Your task to perform on an android device: uninstall "Google Play services" Image 0: 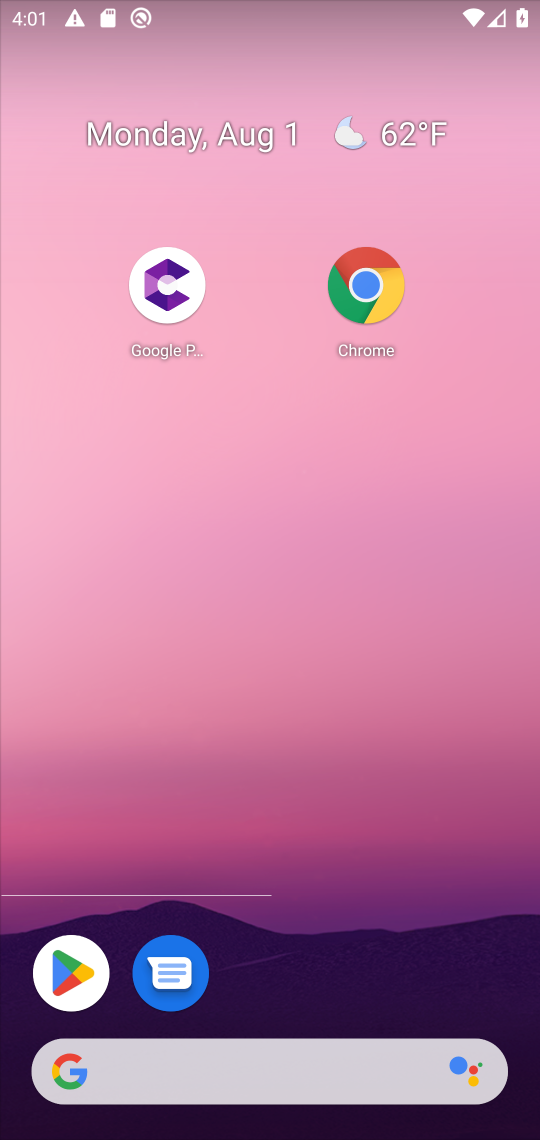
Step 0: press back button
Your task to perform on an android device: uninstall "Google Play services" Image 1: 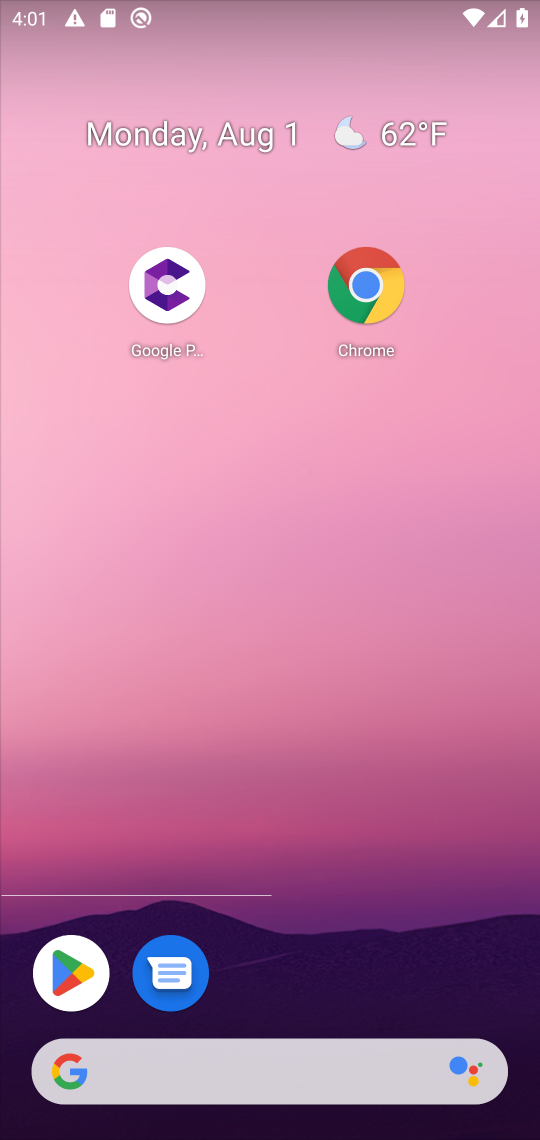
Step 1: drag from (237, 164) to (29, 49)
Your task to perform on an android device: uninstall "Google Play services" Image 2: 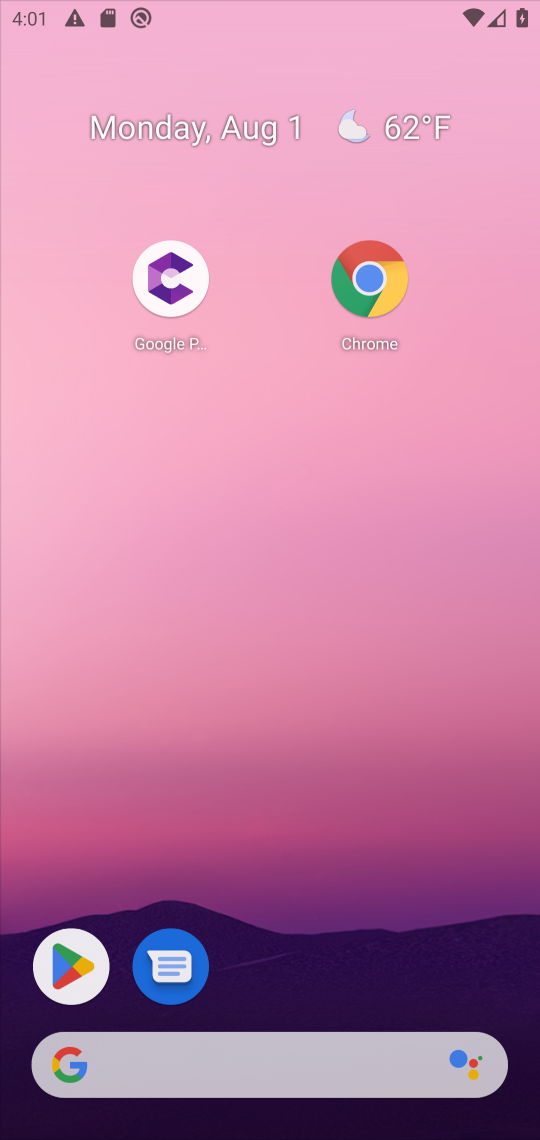
Step 2: drag from (288, 718) to (279, 314)
Your task to perform on an android device: uninstall "Google Play services" Image 3: 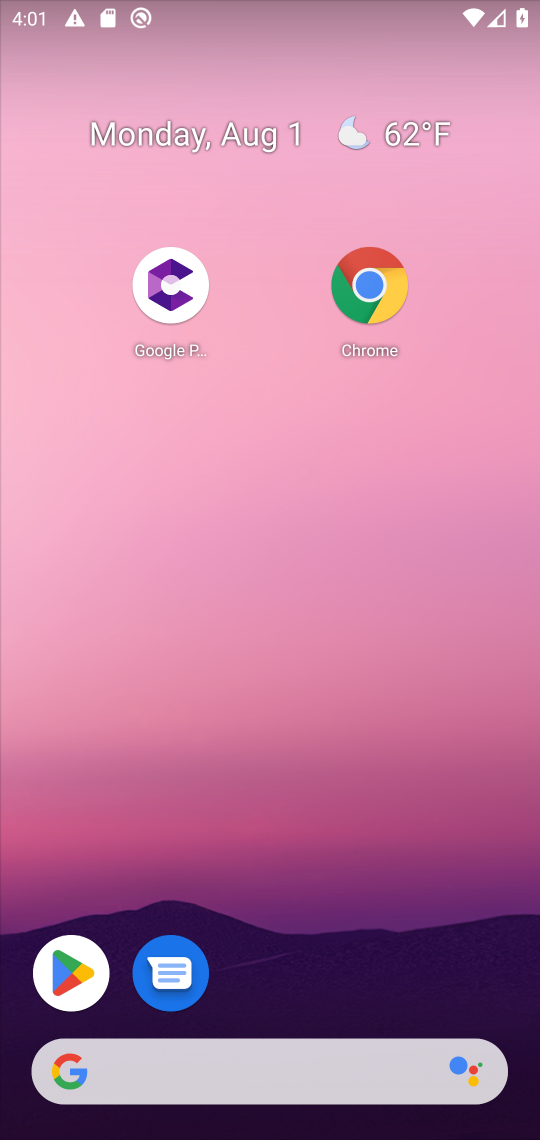
Step 3: drag from (461, 408) to (440, 156)
Your task to perform on an android device: uninstall "Google Play services" Image 4: 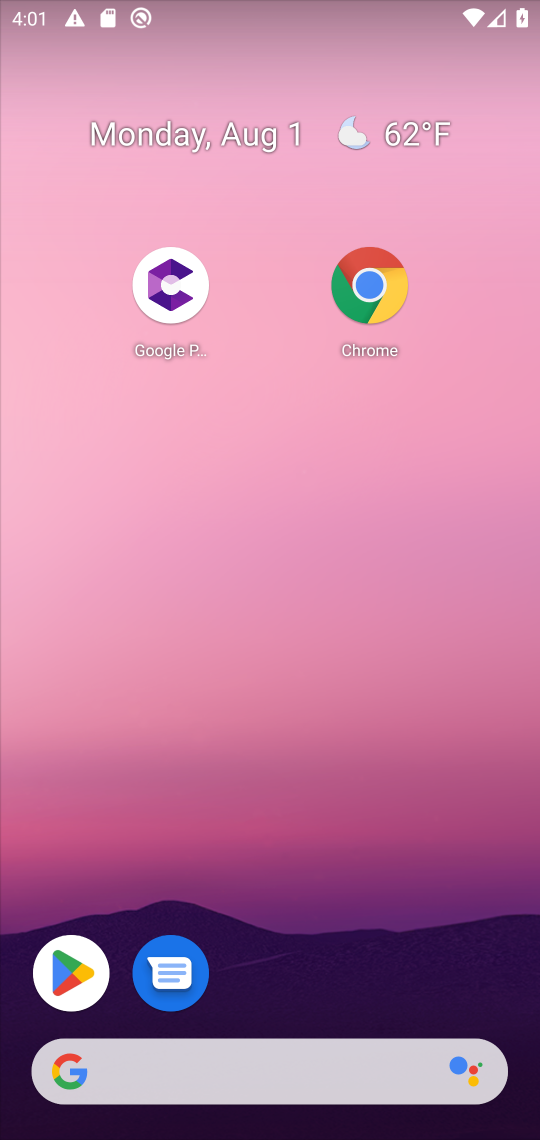
Step 4: drag from (350, 655) to (406, 104)
Your task to perform on an android device: uninstall "Google Play services" Image 5: 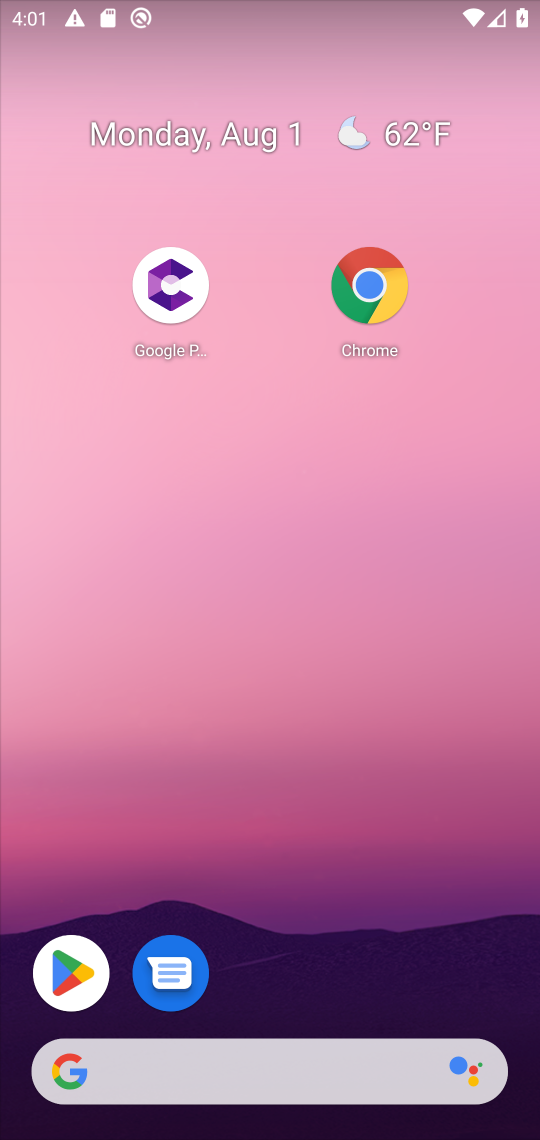
Step 5: drag from (423, 625) to (433, 361)
Your task to perform on an android device: uninstall "Google Play services" Image 6: 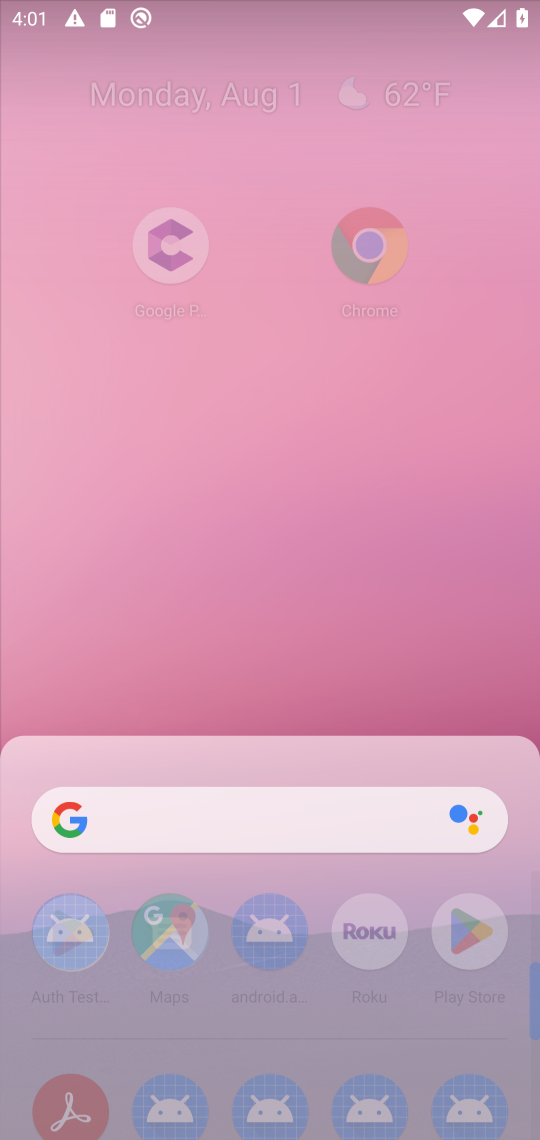
Step 6: drag from (169, 698) to (97, 416)
Your task to perform on an android device: uninstall "Google Play services" Image 7: 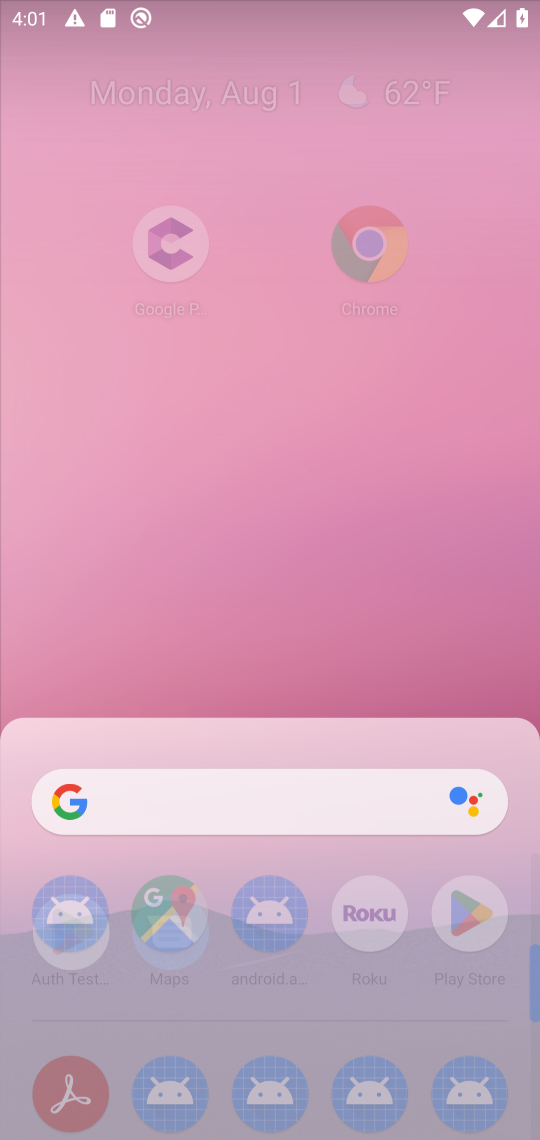
Step 7: drag from (213, 743) to (243, 1)
Your task to perform on an android device: uninstall "Google Play services" Image 8: 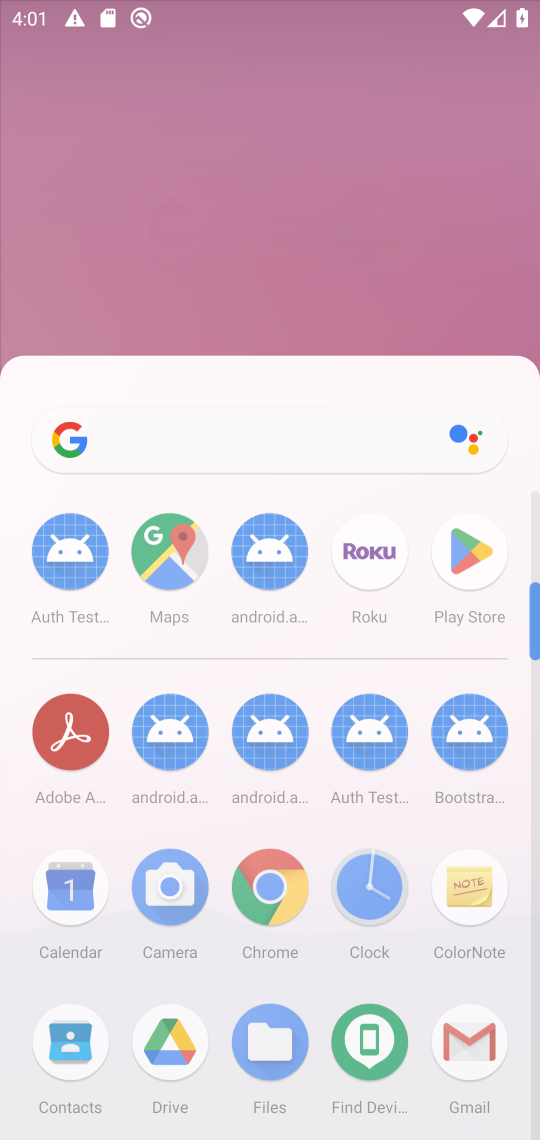
Step 8: drag from (200, 667) to (222, 200)
Your task to perform on an android device: uninstall "Google Play services" Image 9: 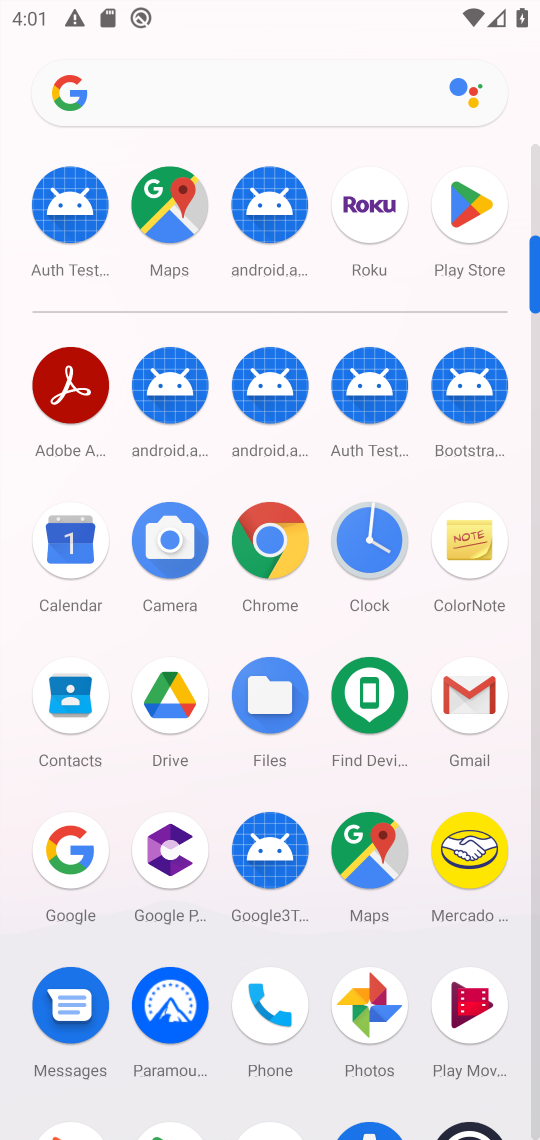
Step 9: click (455, 199)
Your task to perform on an android device: uninstall "Google Play services" Image 10: 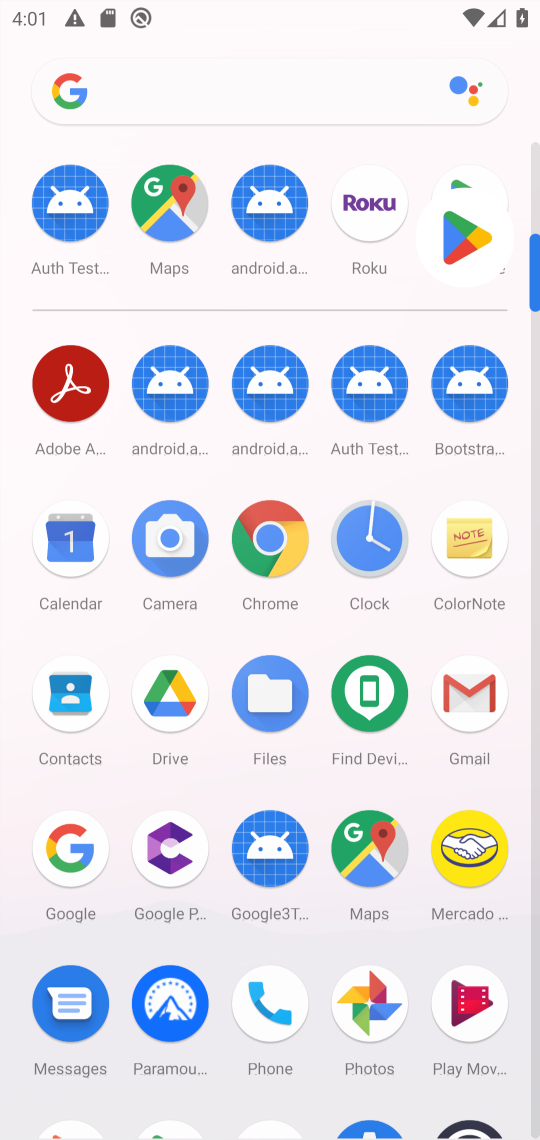
Step 10: click (456, 201)
Your task to perform on an android device: uninstall "Google Play services" Image 11: 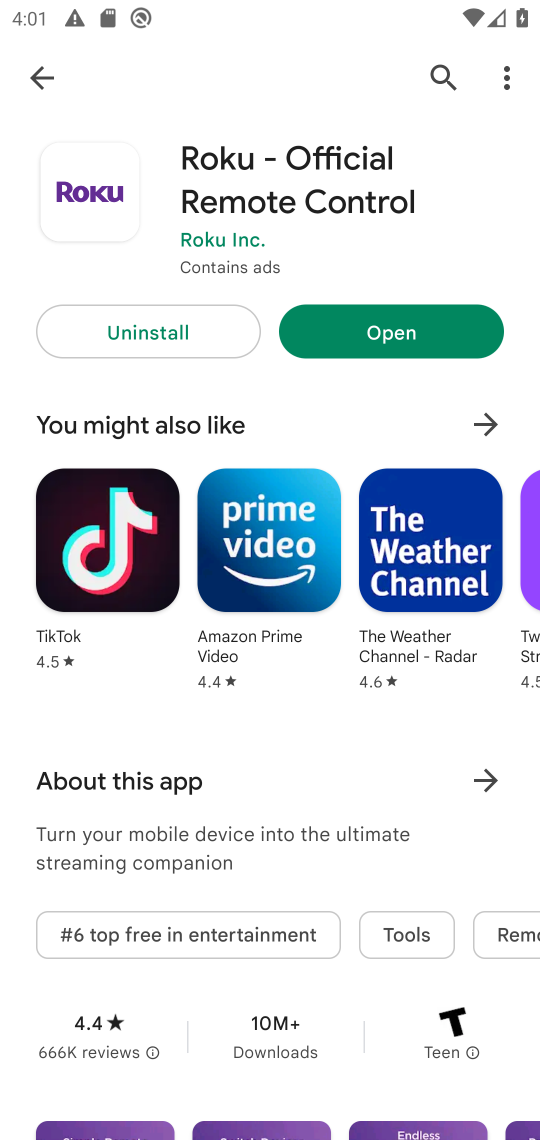
Step 11: click (36, 67)
Your task to perform on an android device: uninstall "Google Play services" Image 12: 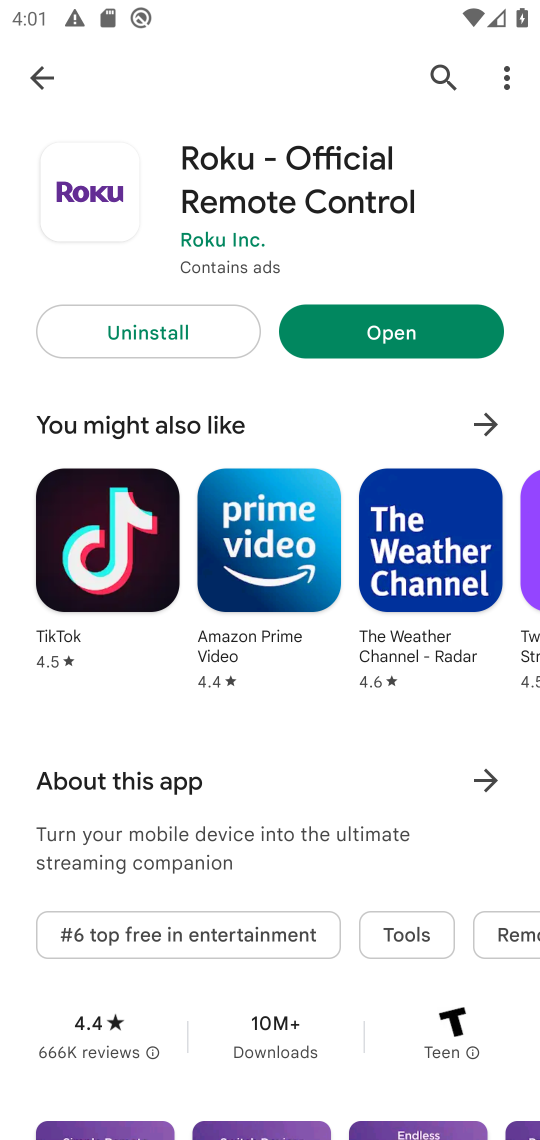
Step 12: click (36, 67)
Your task to perform on an android device: uninstall "Google Play services" Image 13: 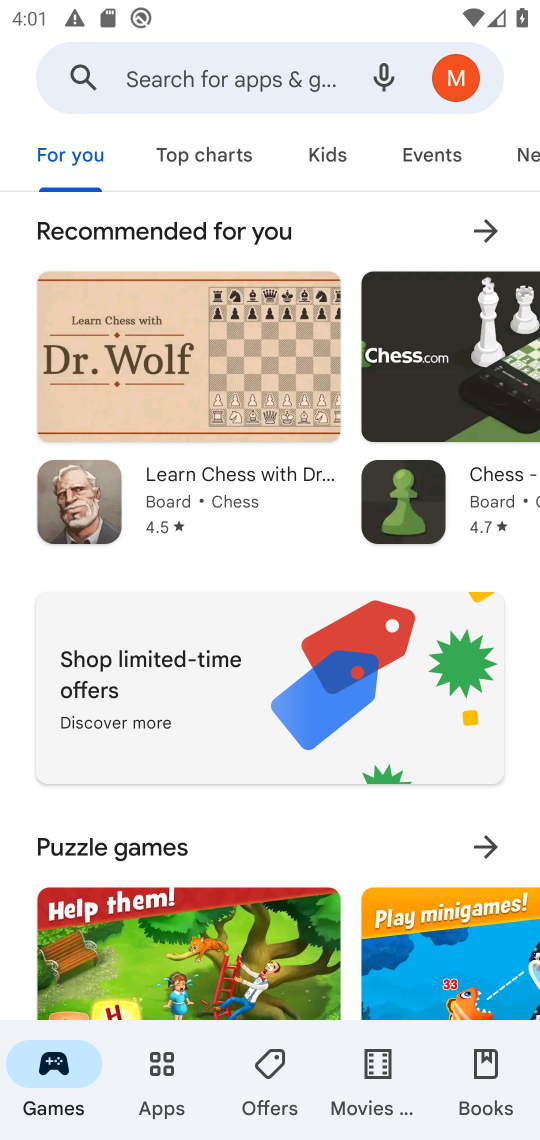
Step 13: click (119, 61)
Your task to perform on an android device: uninstall "Google Play services" Image 14: 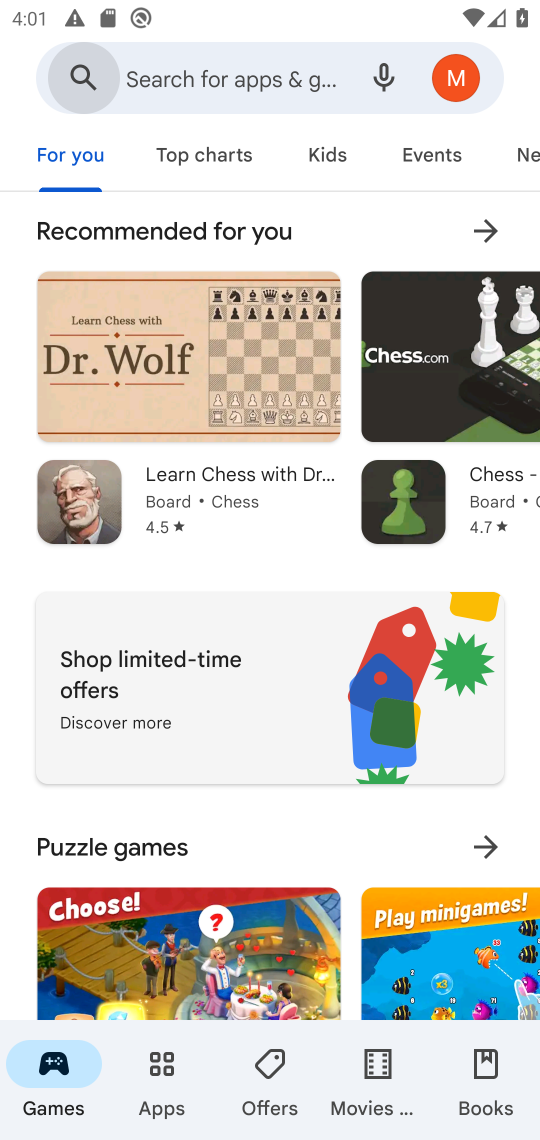
Step 14: click (125, 79)
Your task to perform on an android device: uninstall "Google Play services" Image 15: 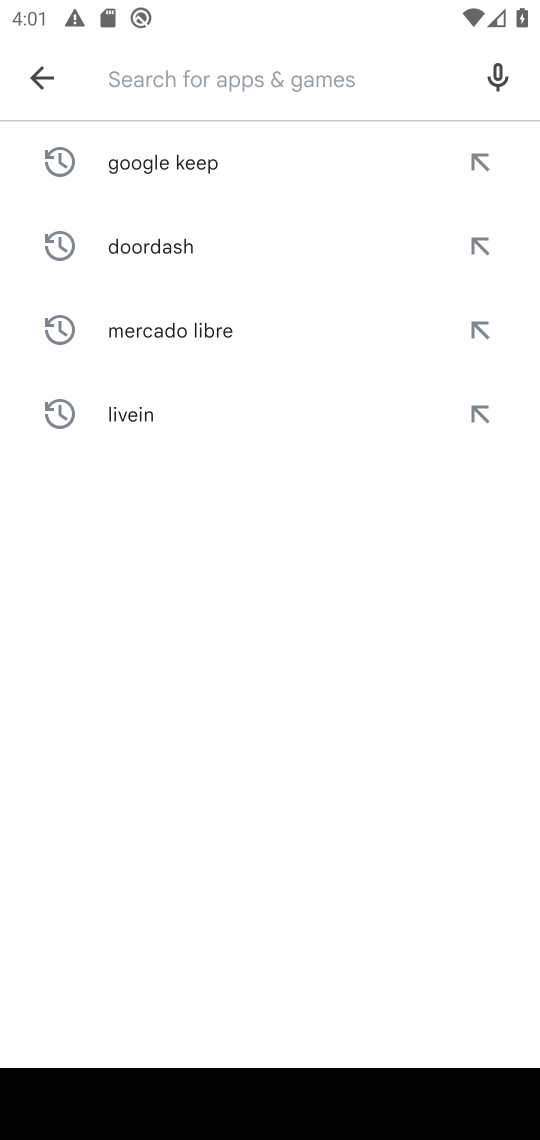
Step 15: type "Goole play "
Your task to perform on an android device: uninstall "Google Play services" Image 16: 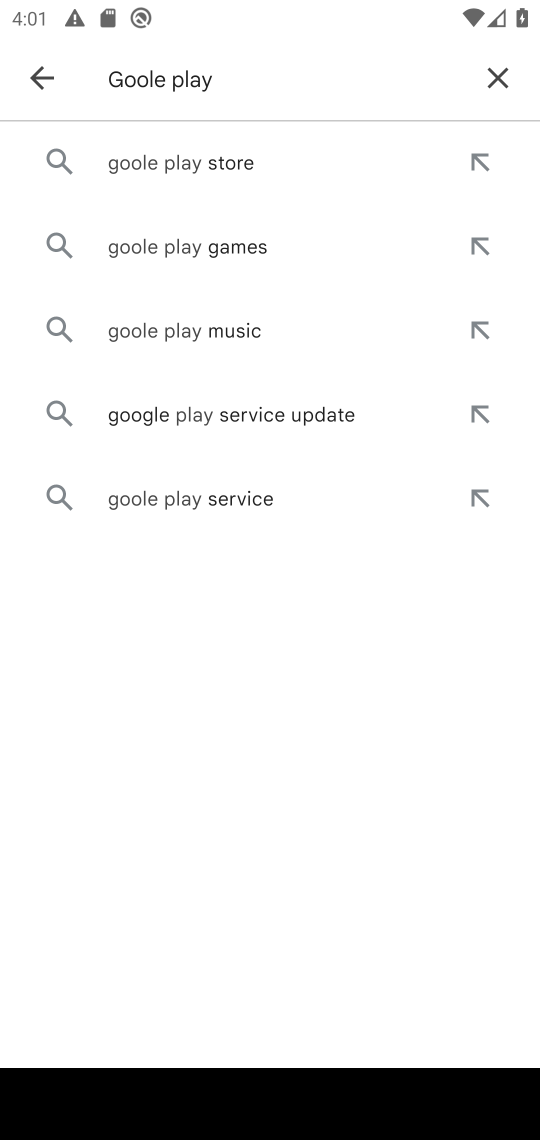
Step 16: click (212, 417)
Your task to perform on an android device: uninstall "Google Play services" Image 17: 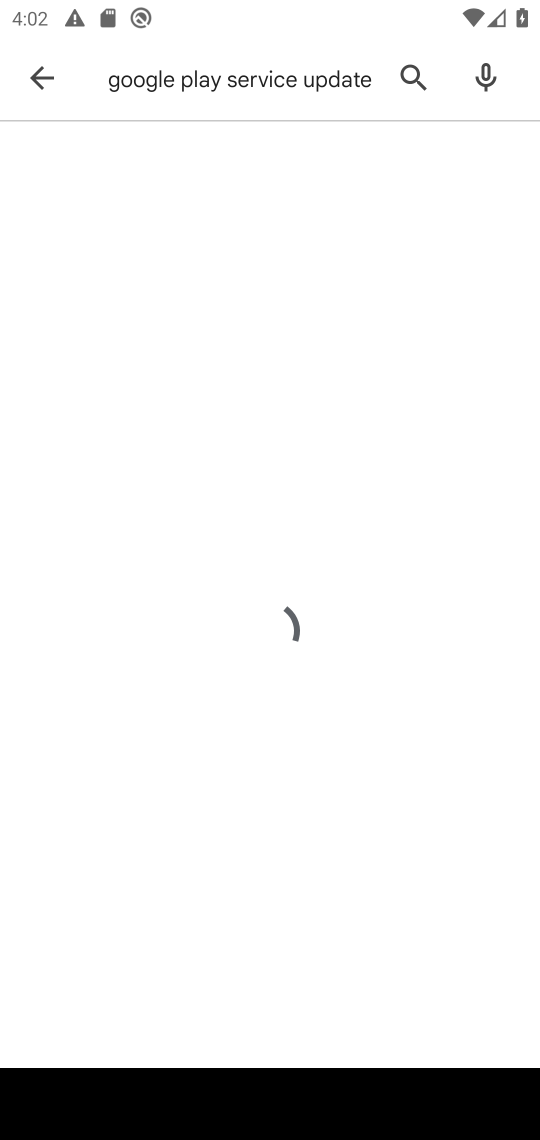
Step 17: click (208, 411)
Your task to perform on an android device: uninstall "Google Play services" Image 18: 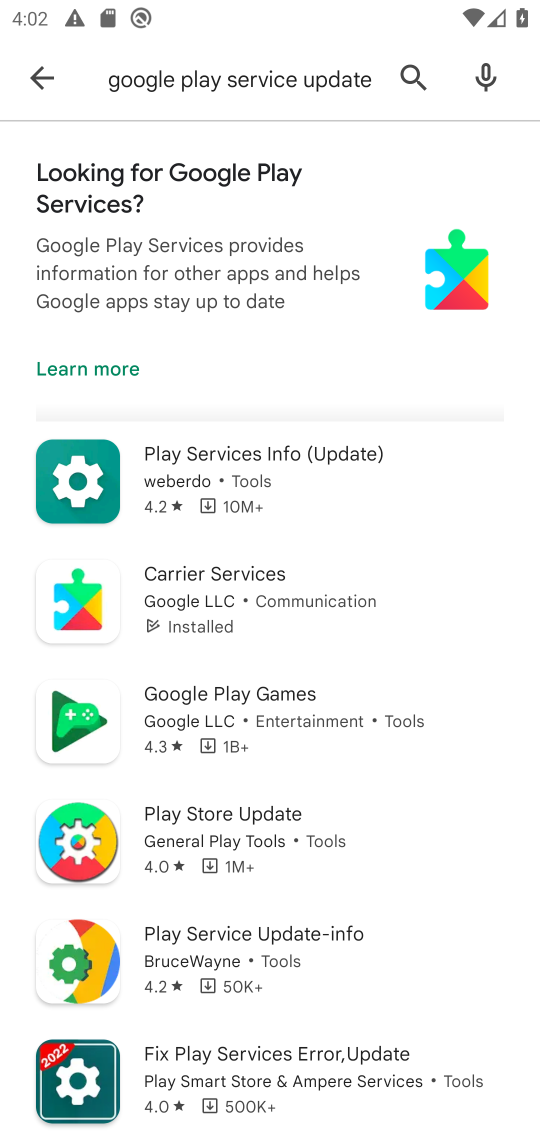
Step 18: click (205, 132)
Your task to perform on an android device: uninstall "Google Play services" Image 19: 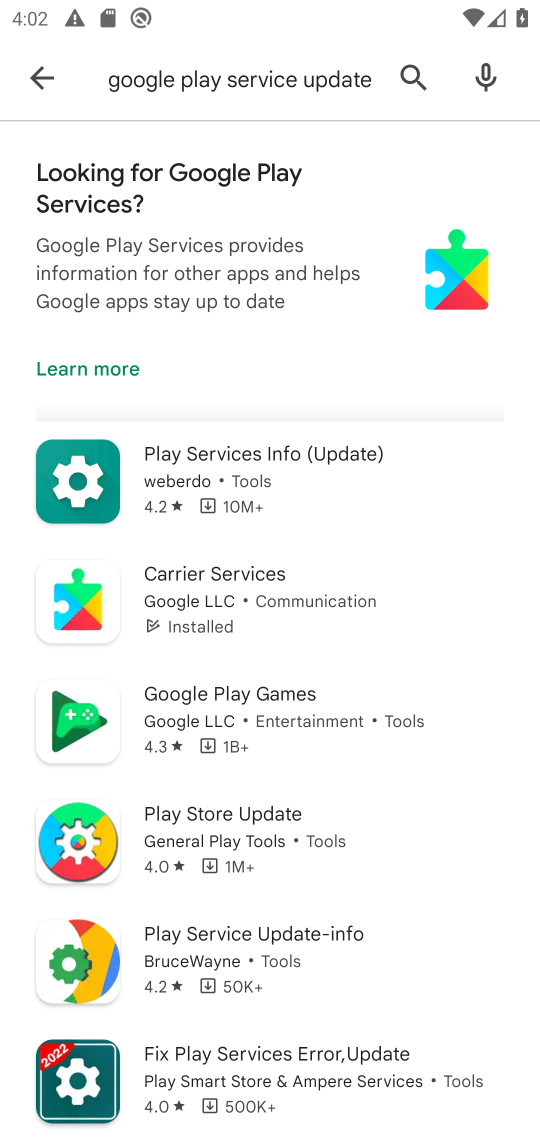
Step 19: drag from (224, 636) to (183, 357)
Your task to perform on an android device: uninstall "Google Play services" Image 20: 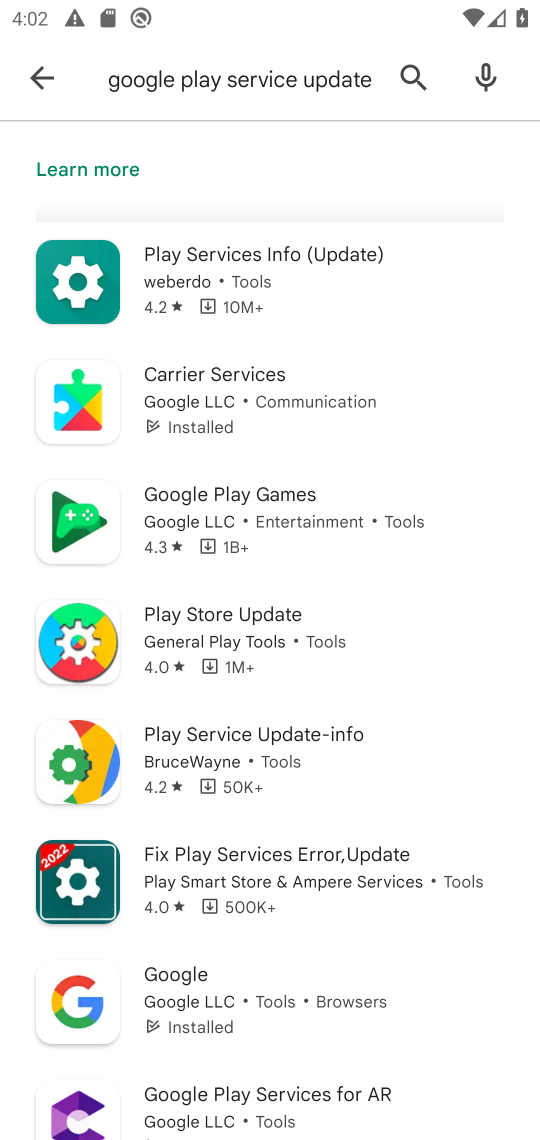
Step 20: drag from (224, 577) to (204, 185)
Your task to perform on an android device: uninstall "Google Play services" Image 21: 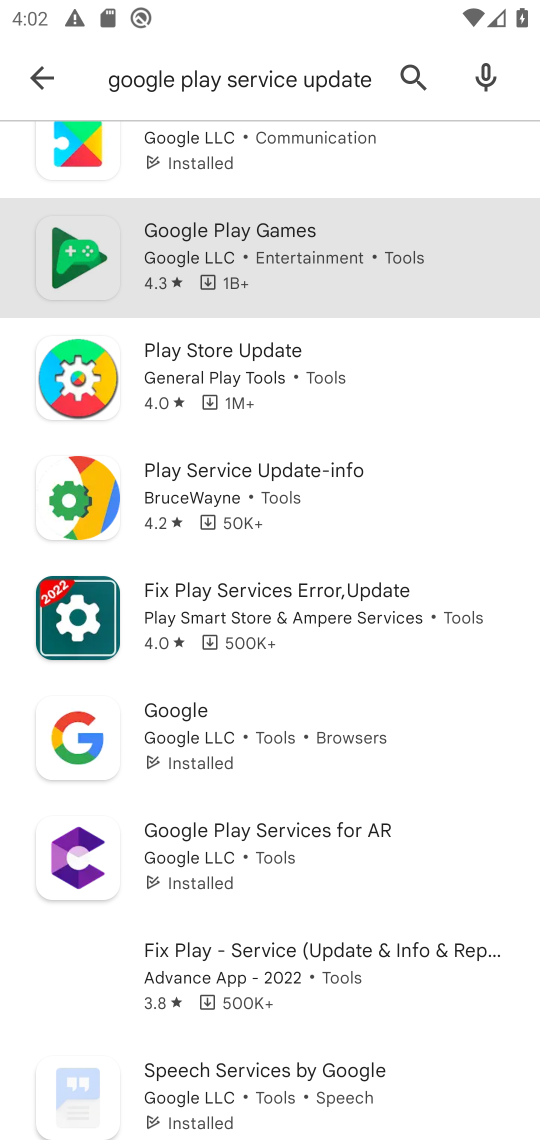
Step 21: drag from (206, 579) to (219, 220)
Your task to perform on an android device: uninstall "Google Play services" Image 22: 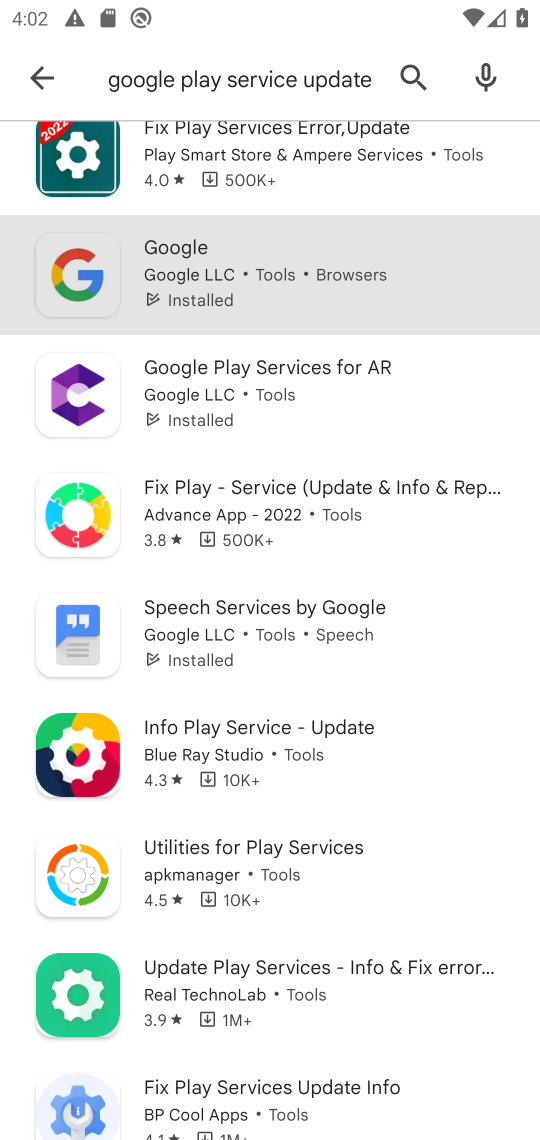
Step 22: drag from (227, 574) to (244, 472)
Your task to perform on an android device: uninstall "Google Play services" Image 23: 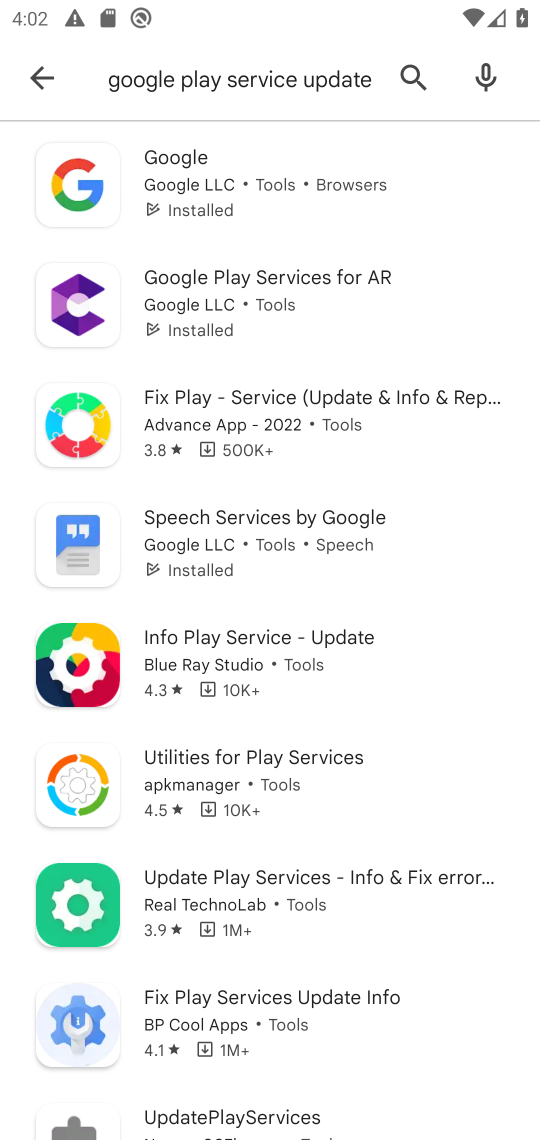
Step 23: drag from (173, 541) to (240, 988)
Your task to perform on an android device: uninstall "Google Play services" Image 24: 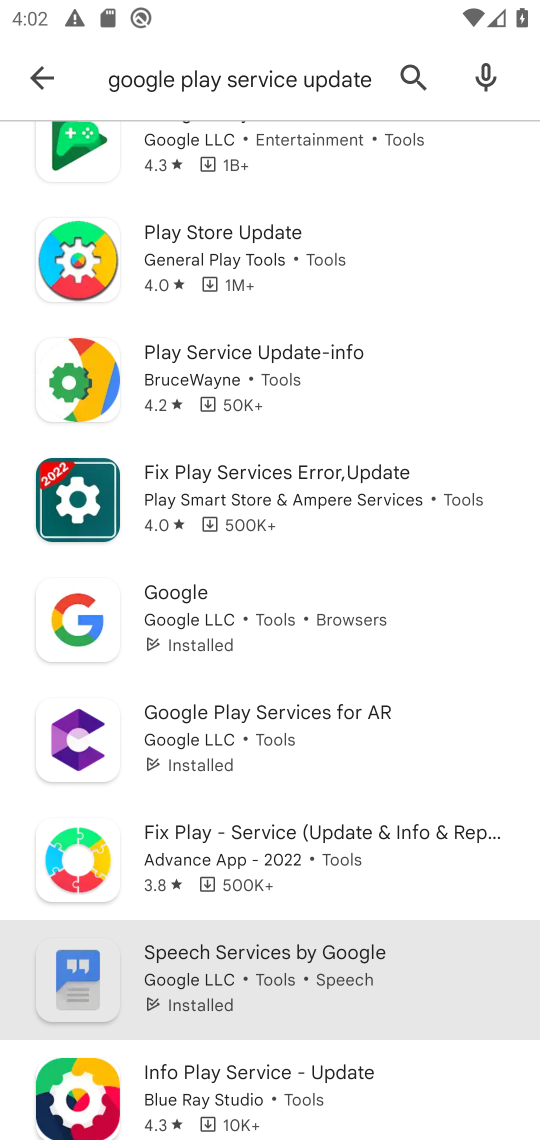
Step 24: drag from (235, 622) to (248, 1118)
Your task to perform on an android device: uninstall "Google Play services" Image 25: 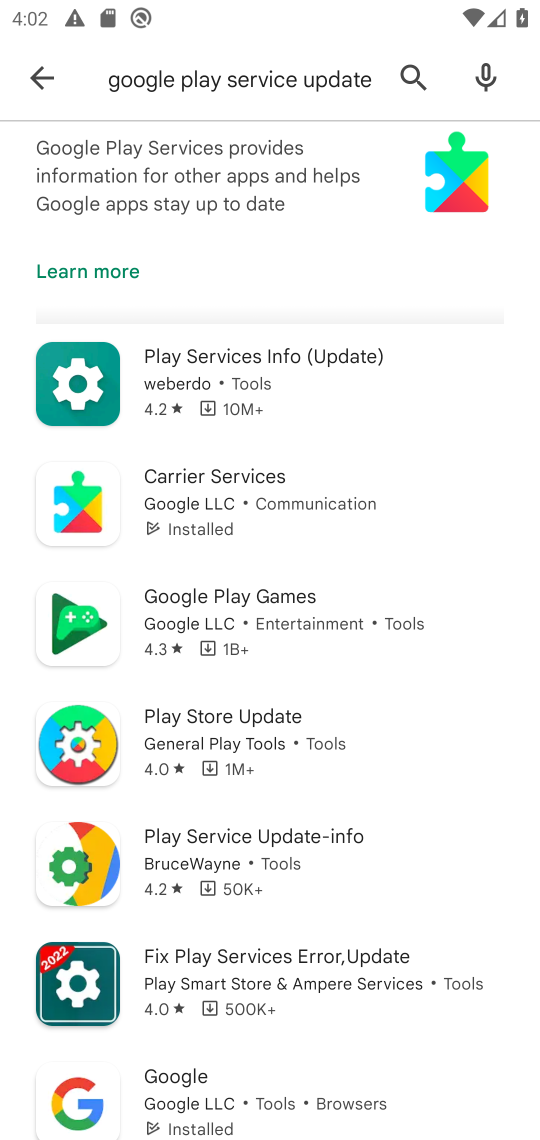
Step 25: drag from (221, 717) to (321, 1102)
Your task to perform on an android device: uninstall "Google Play services" Image 26: 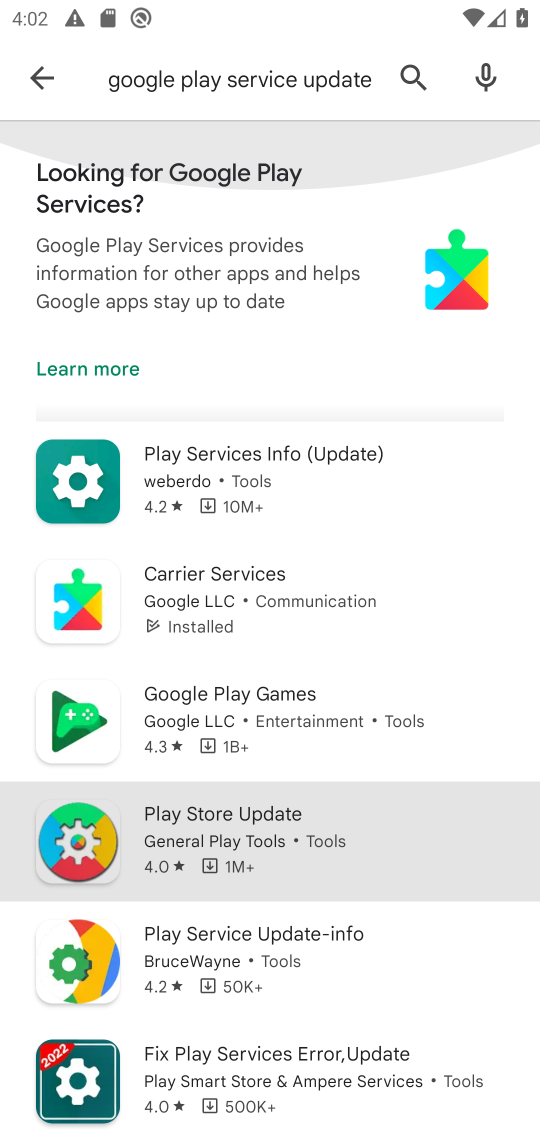
Step 26: drag from (286, 959) to (306, 1102)
Your task to perform on an android device: uninstall "Google Play services" Image 27: 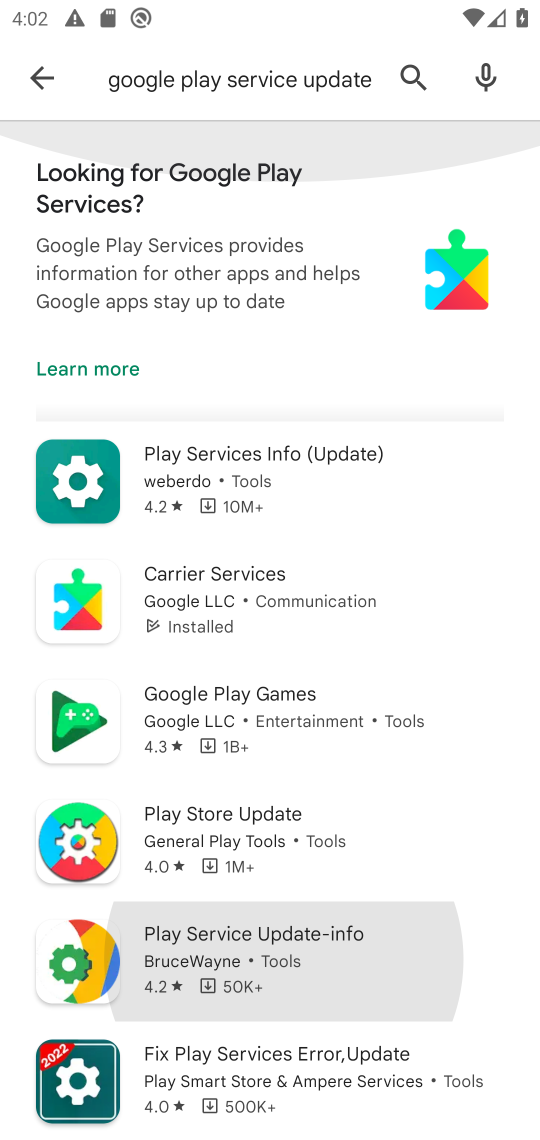
Step 27: click (300, 876)
Your task to perform on an android device: uninstall "Google Play services" Image 28: 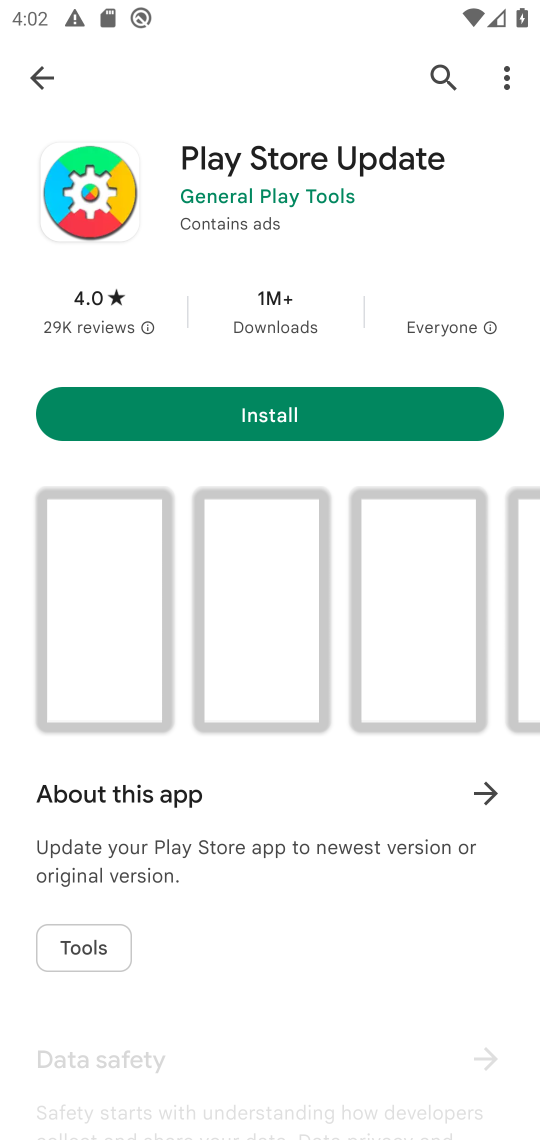
Step 28: task complete